Your task to perform on an android device: Open Yahoo.com Image 0: 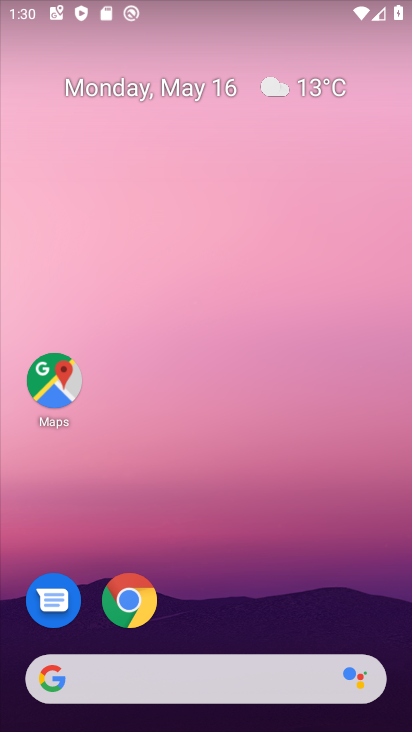
Step 0: click (147, 615)
Your task to perform on an android device: Open Yahoo.com Image 1: 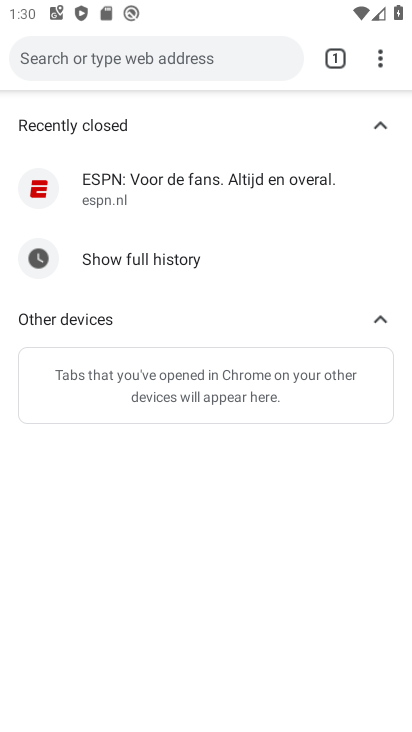
Step 1: click (335, 65)
Your task to perform on an android device: Open Yahoo.com Image 2: 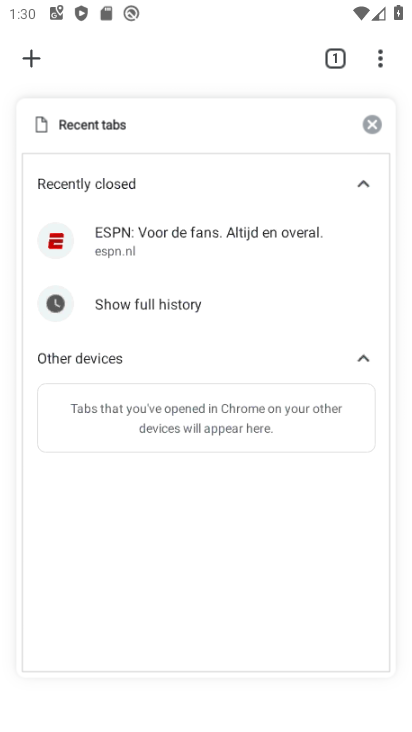
Step 2: click (372, 124)
Your task to perform on an android device: Open Yahoo.com Image 3: 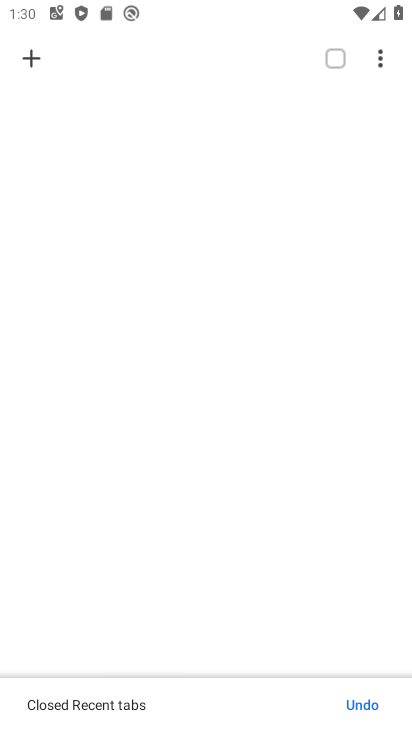
Step 3: click (32, 56)
Your task to perform on an android device: Open Yahoo.com Image 4: 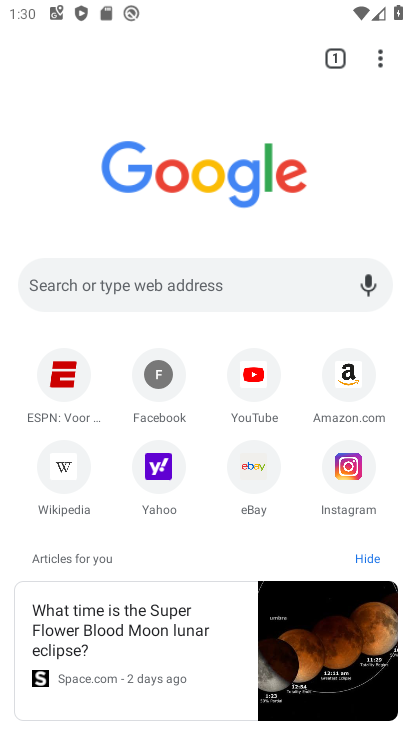
Step 4: click (141, 470)
Your task to perform on an android device: Open Yahoo.com Image 5: 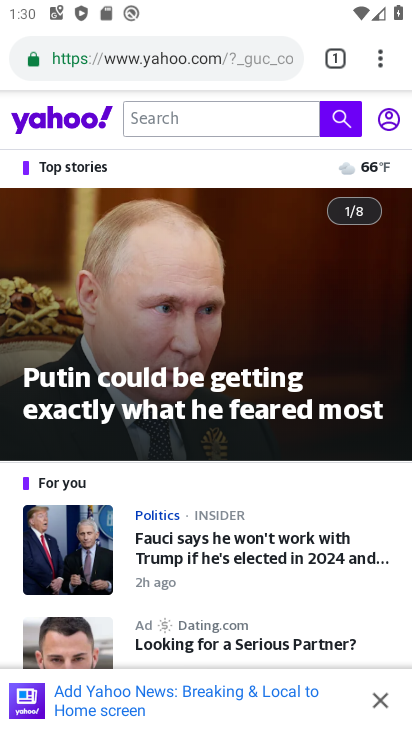
Step 5: task complete